Your task to perform on an android device: Search for Italian restaurants on Maps Image 0: 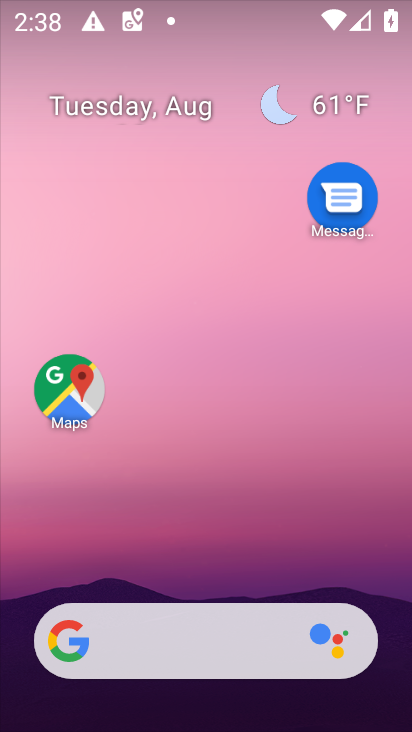
Step 0: drag from (257, 348) to (264, 44)
Your task to perform on an android device: Search for Italian restaurants on Maps Image 1: 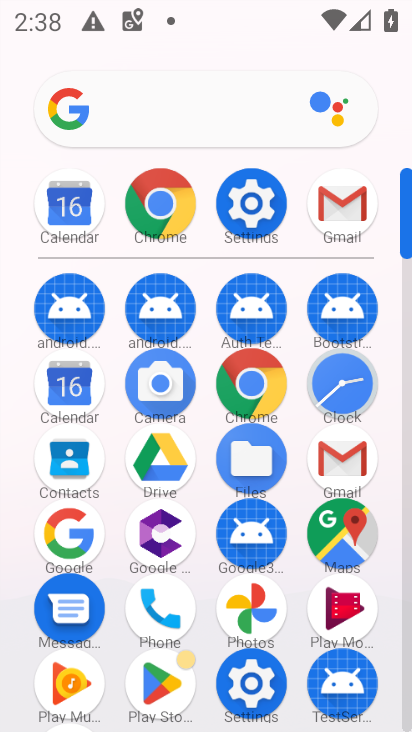
Step 1: click (354, 518)
Your task to perform on an android device: Search for Italian restaurants on Maps Image 2: 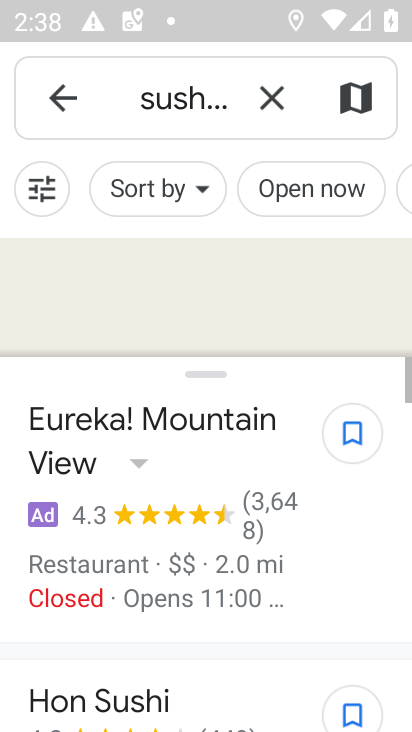
Step 2: click (251, 100)
Your task to perform on an android device: Search for Italian restaurants on Maps Image 3: 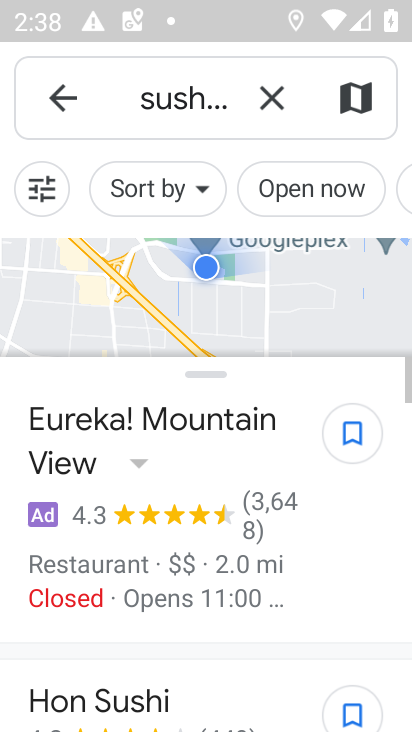
Step 3: click (257, 100)
Your task to perform on an android device: Search for Italian restaurants on Maps Image 4: 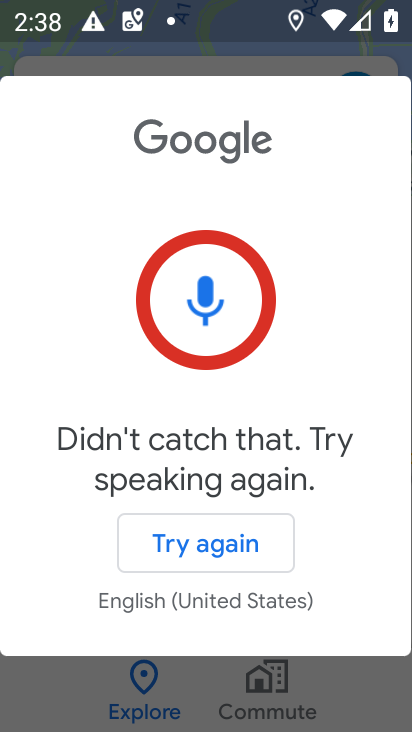
Step 4: click (196, 672)
Your task to perform on an android device: Search for Italian restaurants on Maps Image 5: 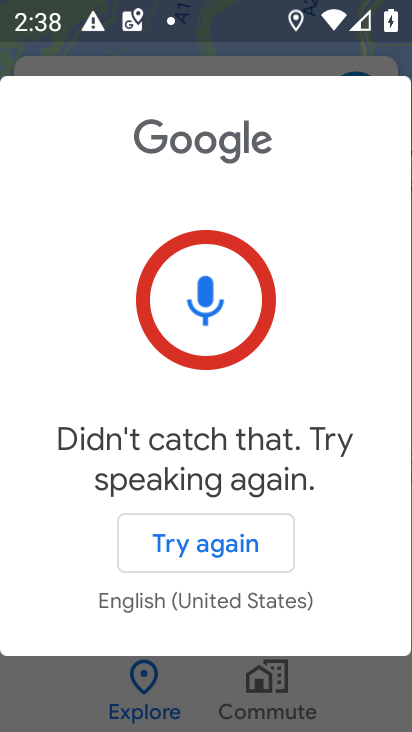
Step 5: click (196, 672)
Your task to perform on an android device: Search for Italian restaurants on Maps Image 6: 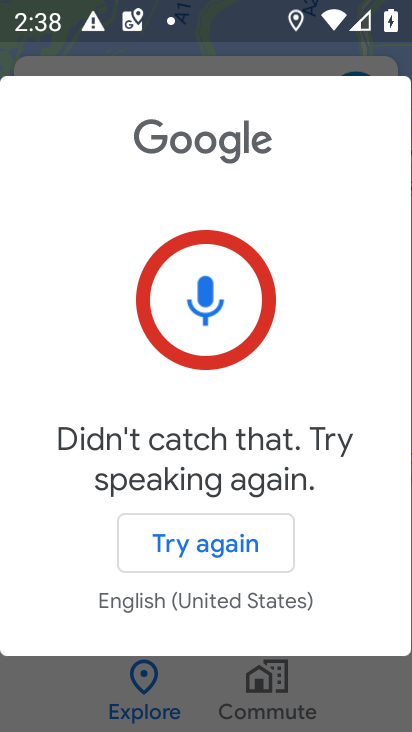
Step 6: task complete